Your task to perform on an android device: What's the weather going to be tomorrow? Image 0: 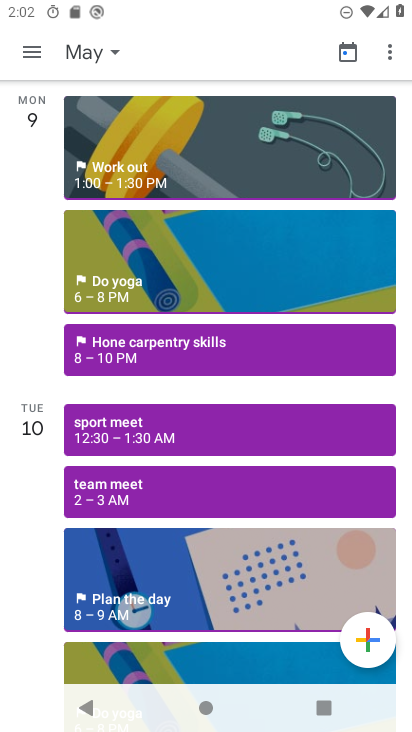
Step 0: press home button
Your task to perform on an android device: What's the weather going to be tomorrow? Image 1: 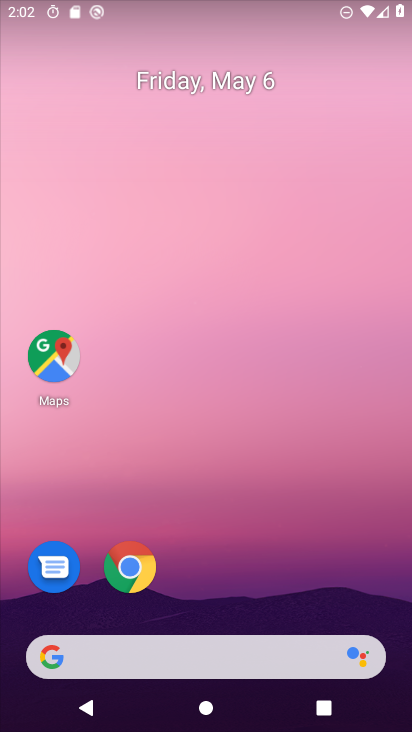
Step 1: drag from (290, 663) to (227, 243)
Your task to perform on an android device: What's the weather going to be tomorrow? Image 2: 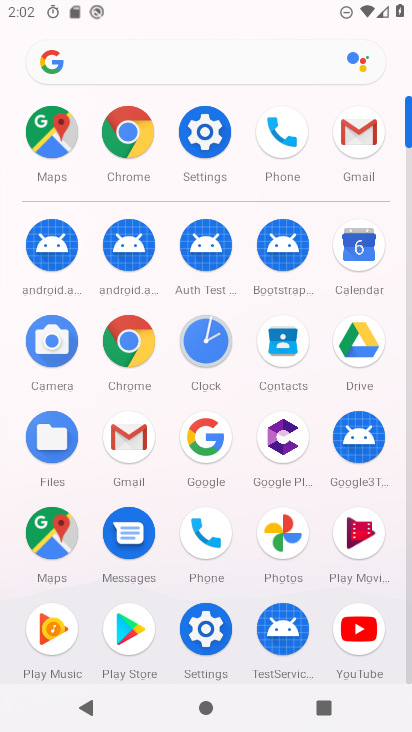
Step 2: click (145, 82)
Your task to perform on an android device: What's the weather going to be tomorrow? Image 3: 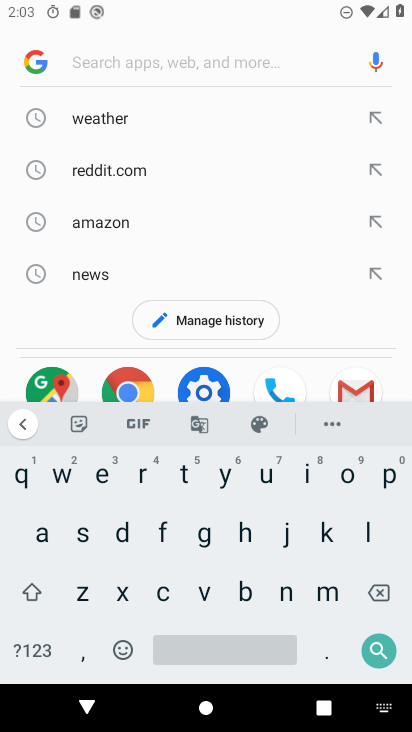
Step 3: click (118, 120)
Your task to perform on an android device: What's the weather going to be tomorrow? Image 4: 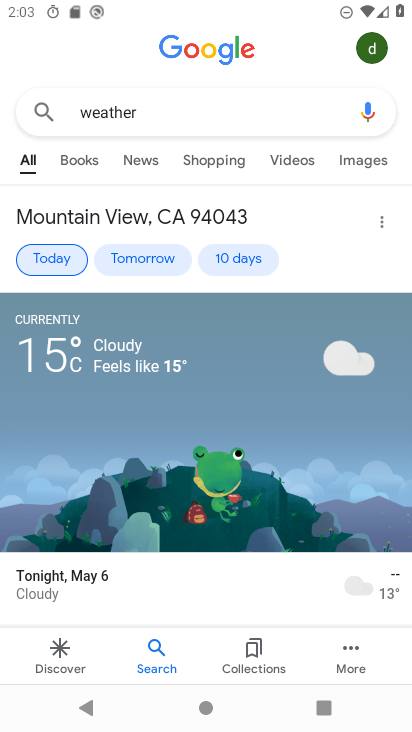
Step 4: click (133, 248)
Your task to perform on an android device: What's the weather going to be tomorrow? Image 5: 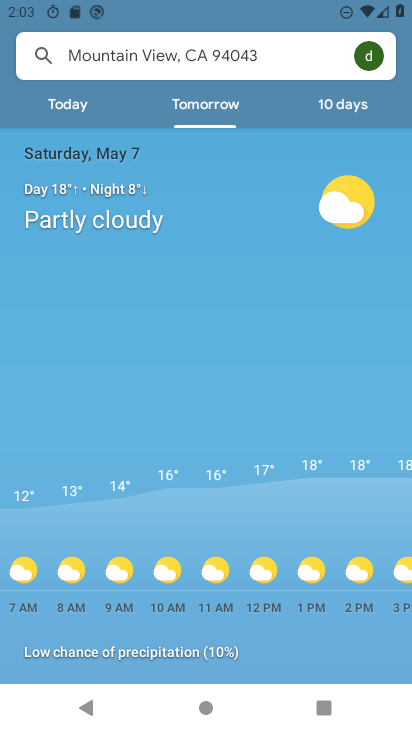
Step 5: task complete